Your task to perform on an android device: Open Reddit.com Image 0: 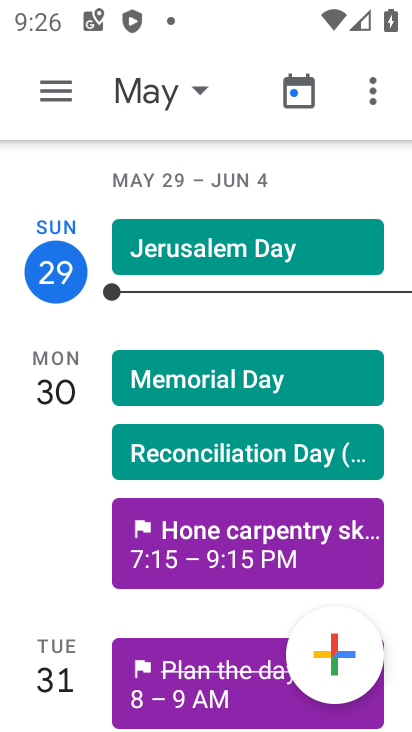
Step 0: press home button
Your task to perform on an android device: Open Reddit.com Image 1: 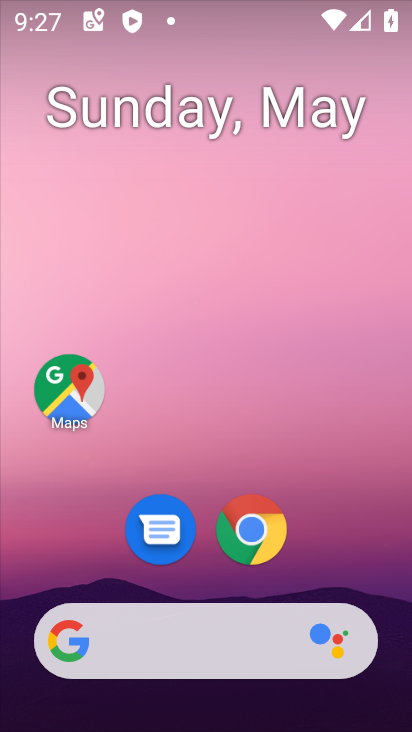
Step 1: click (169, 641)
Your task to perform on an android device: Open Reddit.com Image 2: 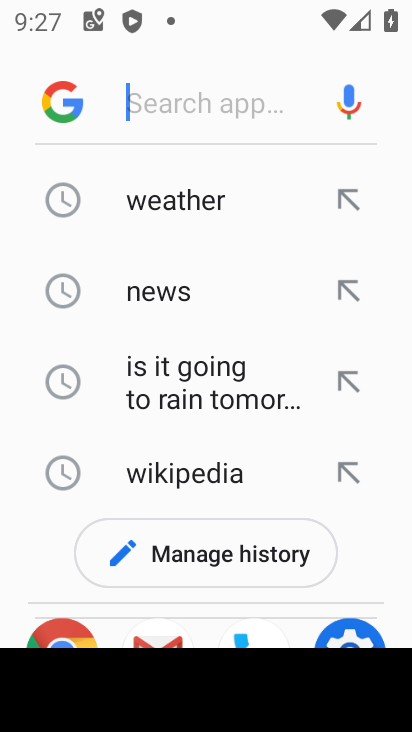
Step 2: type "reddit"
Your task to perform on an android device: Open Reddit.com Image 3: 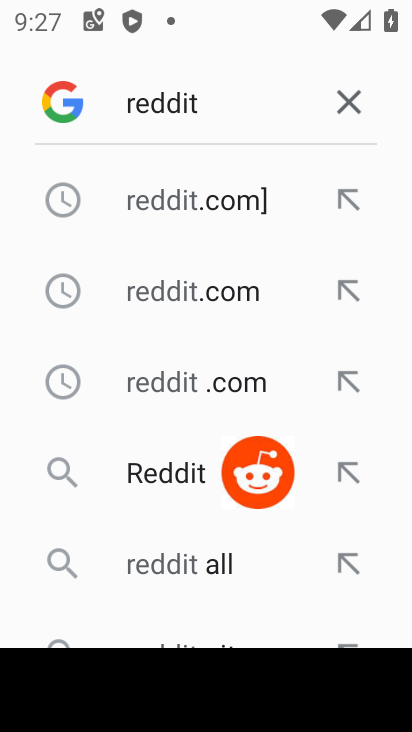
Step 3: click (194, 276)
Your task to perform on an android device: Open Reddit.com Image 4: 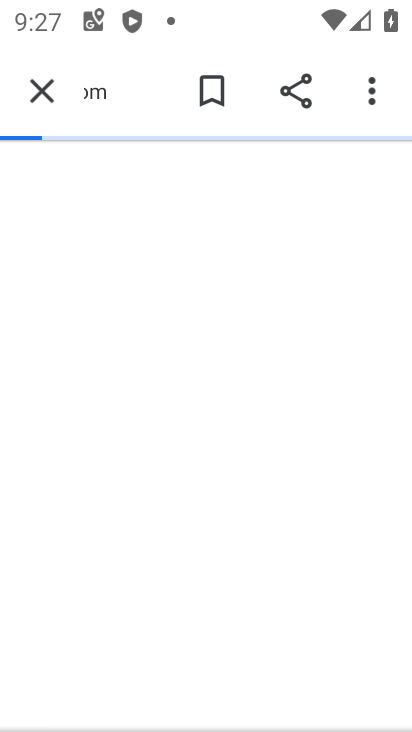
Step 4: task complete